Your task to perform on an android device: Open location settings Image 0: 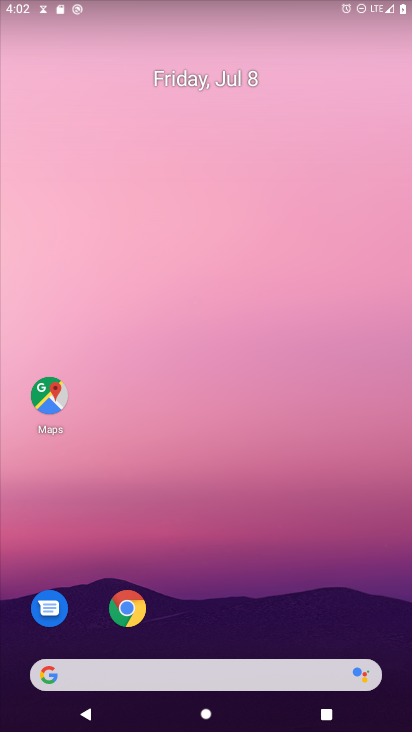
Step 0: drag from (124, 693) to (337, 0)
Your task to perform on an android device: Open location settings Image 1: 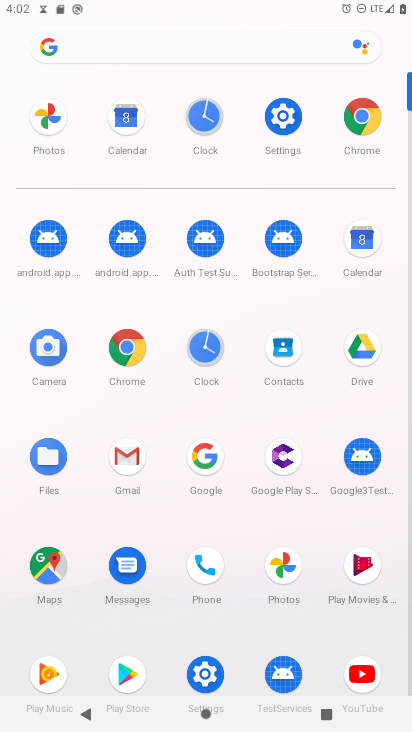
Step 1: click (287, 108)
Your task to perform on an android device: Open location settings Image 2: 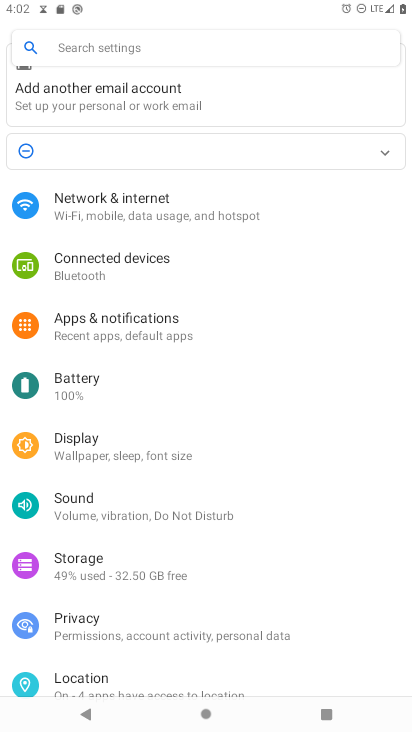
Step 2: click (102, 673)
Your task to perform on an android device: Open location settings Image 3: 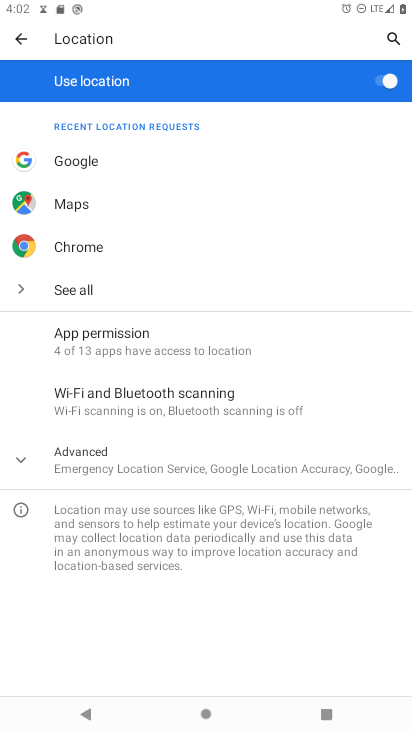
Step 3: task complete